Your task to perform on an android device: see creations saved in the google photos Image 0: 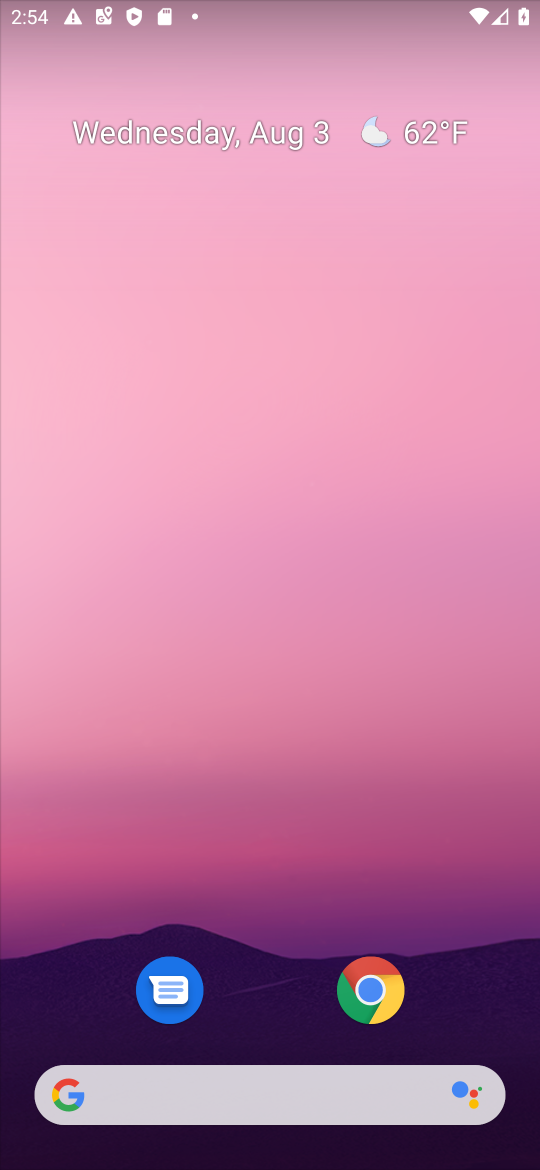
Step 0: drag from (256, 824) to (256, 308)
Your task to perform on an android device: see creations saved in the google photos Image 1: 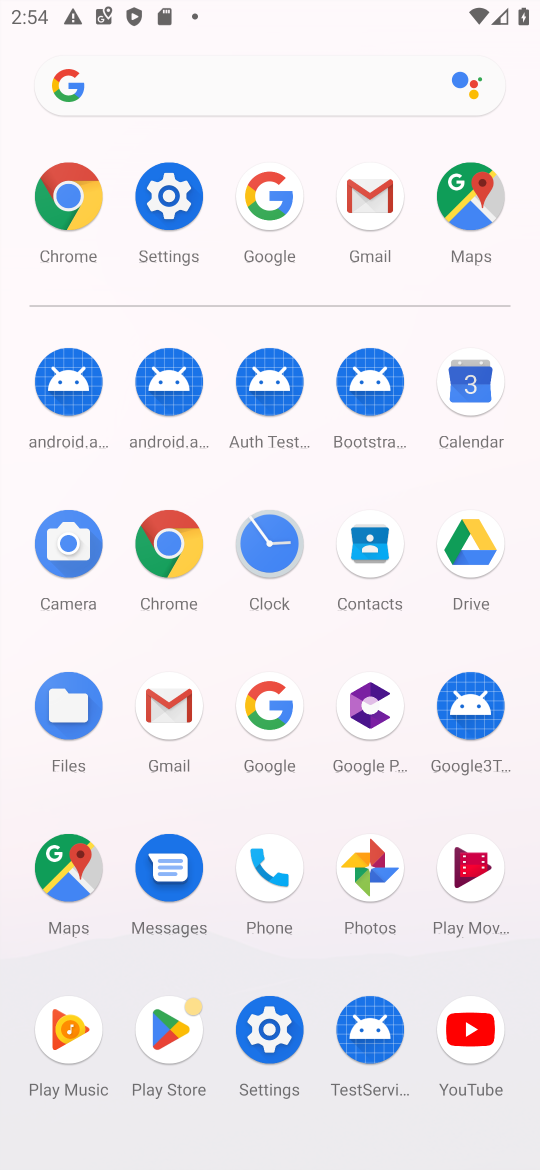
Step 1: click (366, 872)
Your task to perform on an android device: see creations saved in the google photos Image 2: 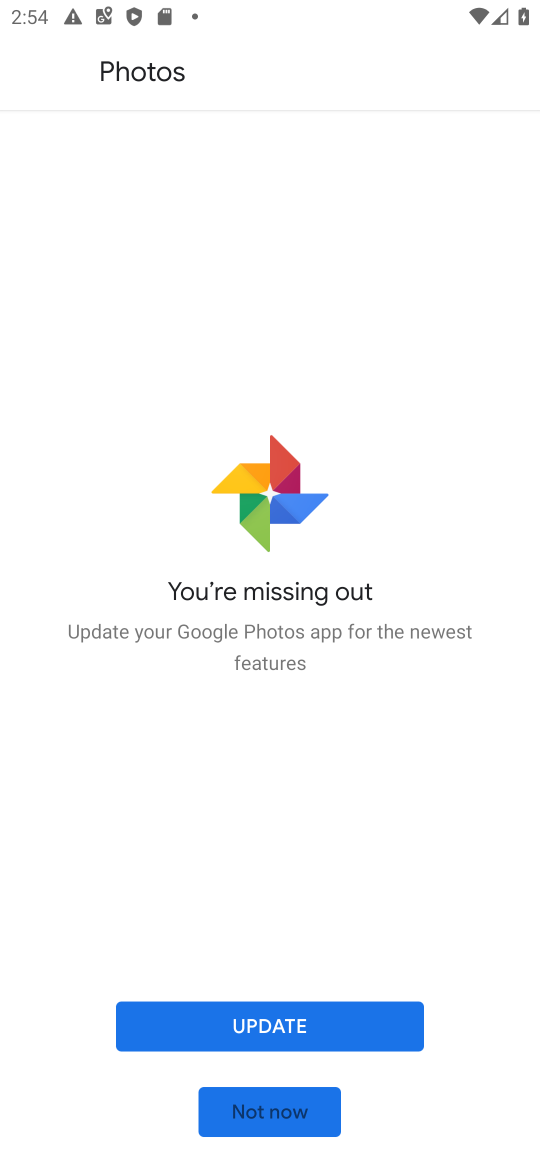
Step 2: click (278, 1103)
Your task to perform on an android device: see creations saved in the google photos Image 3: 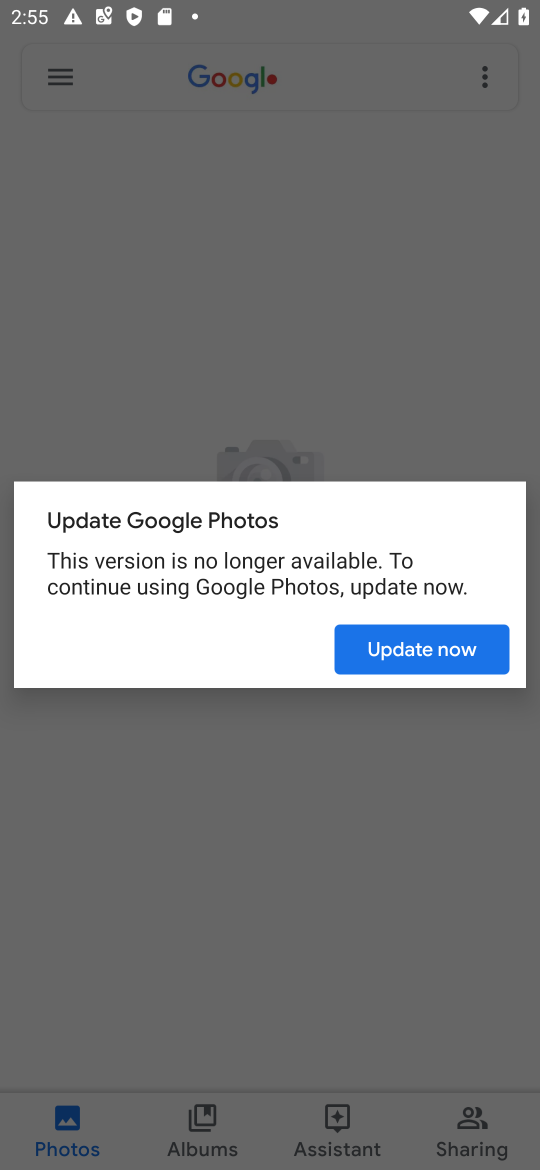
Step 3: click (387, 654)
Your task to perform on an android device: see creations saved in the google photos Image 4: 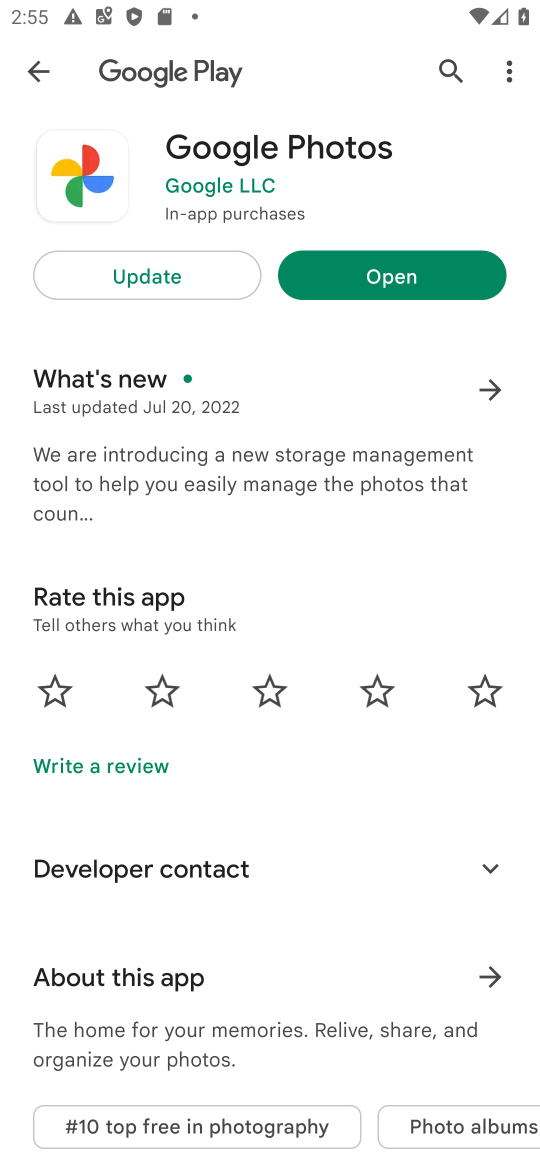
Step 4: click (129, 281)
Your task to perform on an android device: see creations saved in the google photos Image 5: 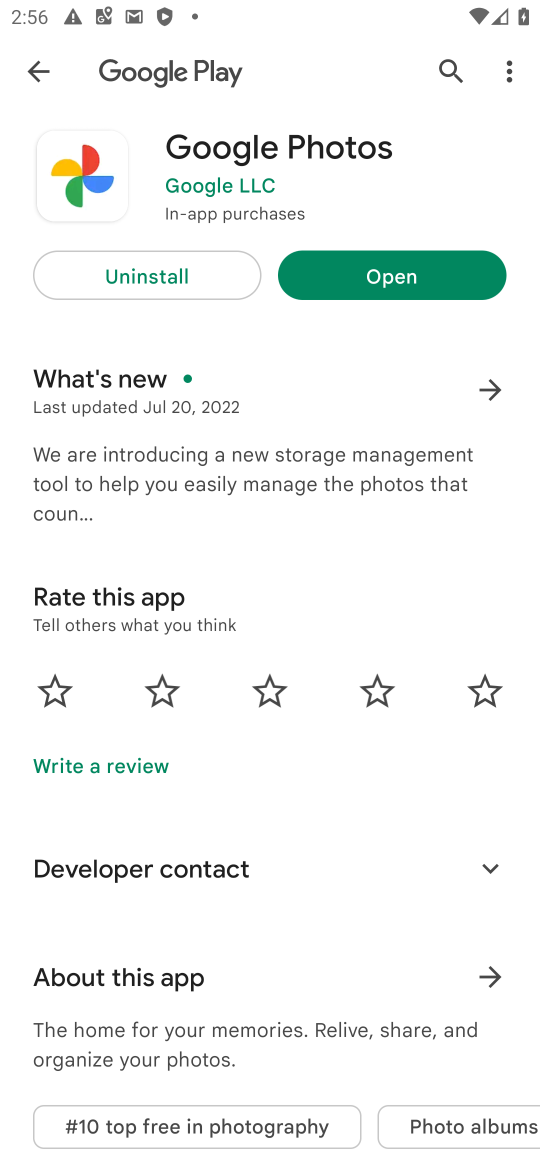
Step 5: click (429, 270)
Your task to perform on an android device: see creations saved in the google photos Image 6: 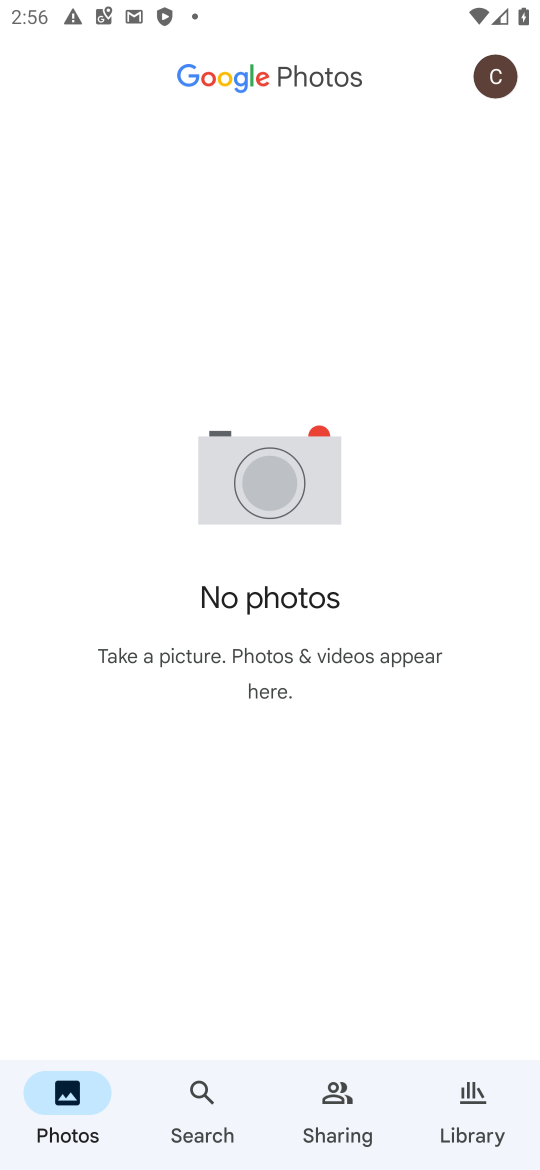
Step 6: click (460, 1087)
Your task to perform on an android device: see creations saved in the google photos Image 7: 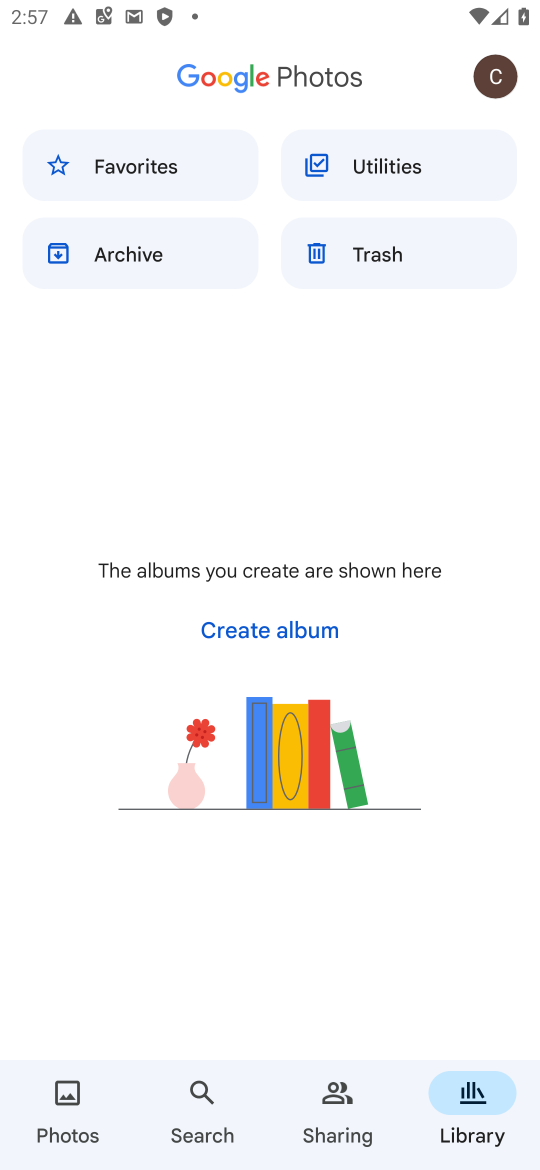
Step 7: task complete